Your task to perform on an android device: Open calendar and show me the second week of next month Image 0: 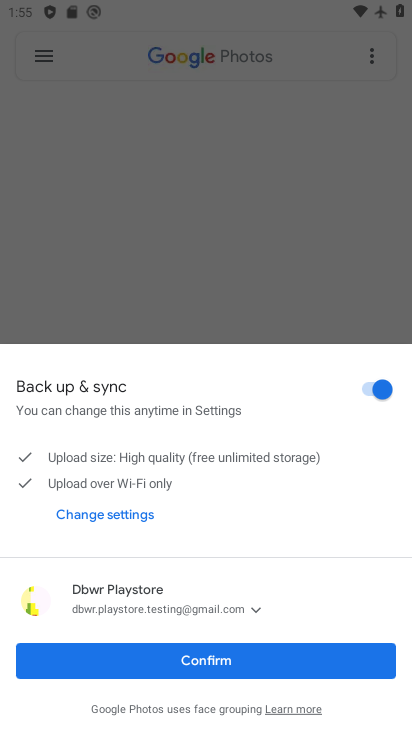
Step 0: press back button
Your task to perform on an android device: Open calendar and show me the second week of next month Image 1: 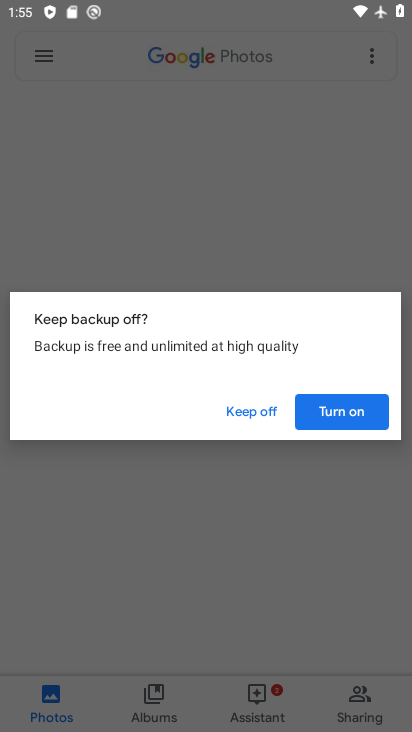
Step 1: press home button
Your task to perform on an android device: Open calendar and show me the second week of next month Image 2: 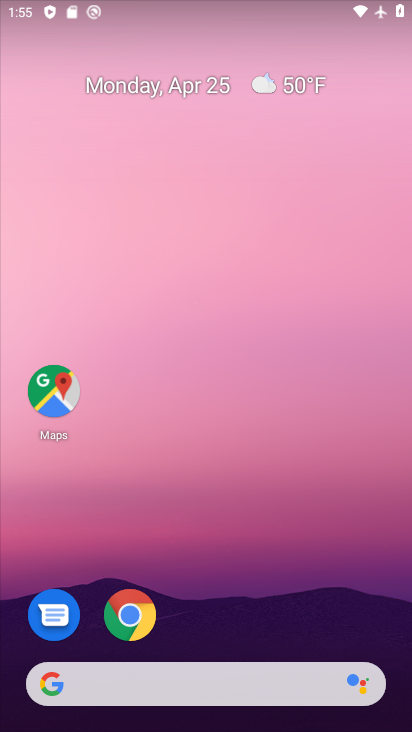
Step 2: drag from (228, 554) to (250, 46)
Your task to perform on an android device: Open calendar and show me the second week of next month Image 3: 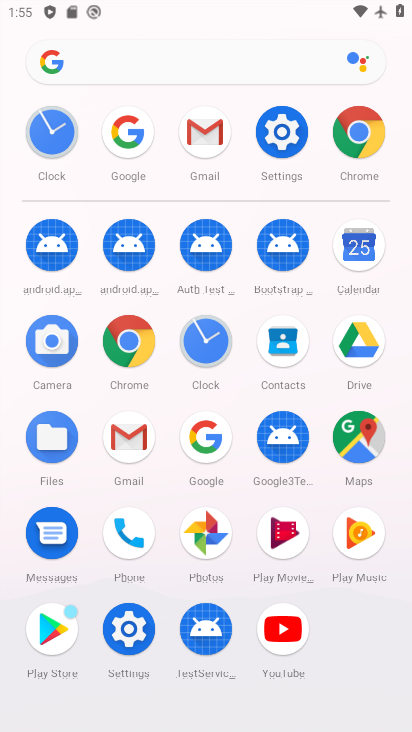
Step 3: click (361, 246)
Your task to perform on an android device: Open calendar and show me the second week of next month Image 4: 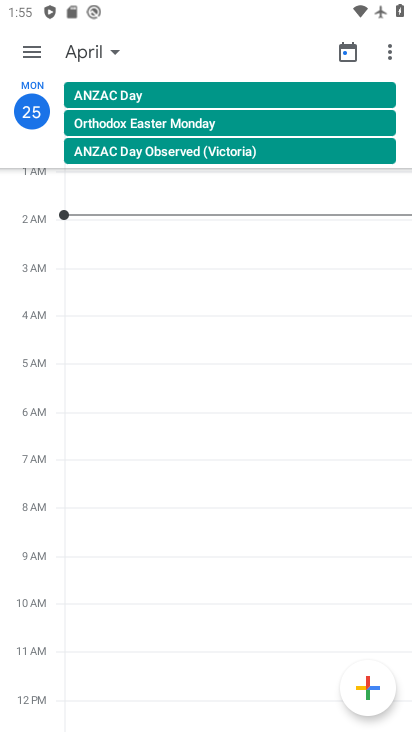
Step 4: click (352, 51)
Your task to perform on an android device: Open calendar and show me the second week of next month Image 5: 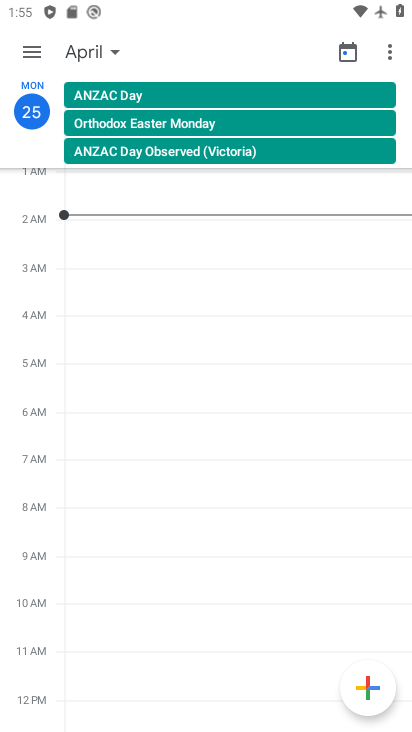
Step 5: click (352, 51)
Your task to perform on an android device: Open calendar and show me the second week of next month Image 6: 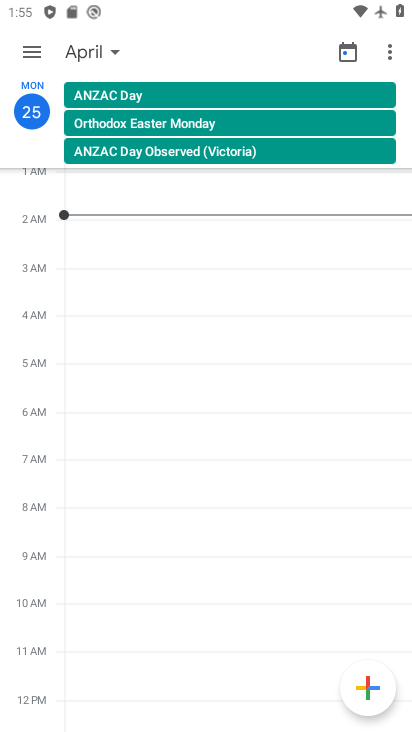
Step 6: click (112, 50)
Your task to perform on an android device: Open calendar and show me the second week of next month Image 7: 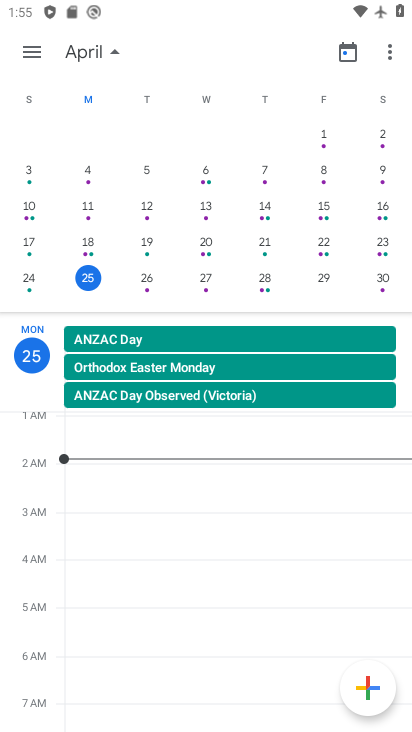
Step 7: drag from (305, 236) to (4, 184)
Your task to perform on an android device: Open calendar and show me the second week of next month Image 8: 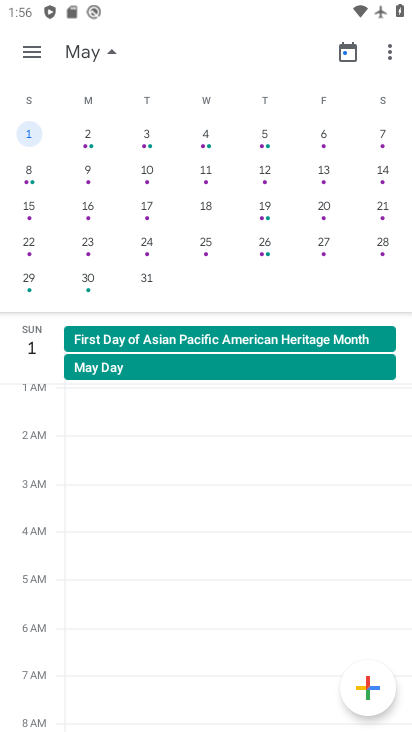
Step 8: click (89, 166)
Your task to perform on an android device: Open calendar and show me the second week of next month Image 9: 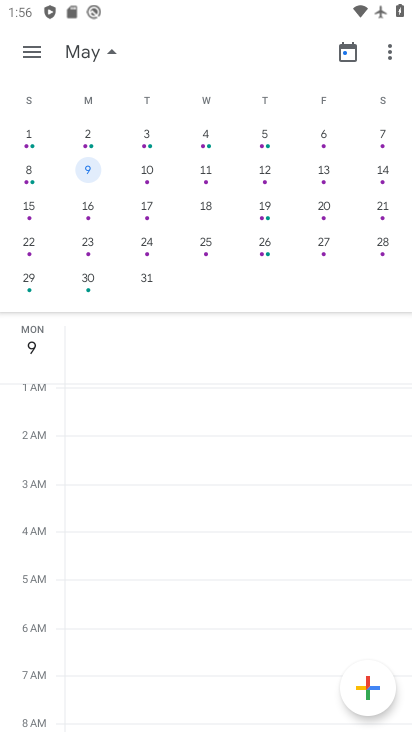
Step 9: click (34, 57)
Your task to perform on an android device: Open calendar and show me the second week of next month Image 10: 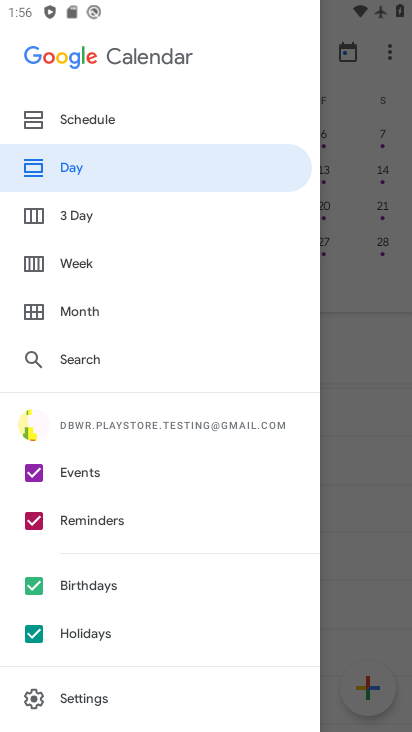
Step 10: click (79, 259)
Your task to perform on an android device: Open calendar and show me the second week of next month Image 11: 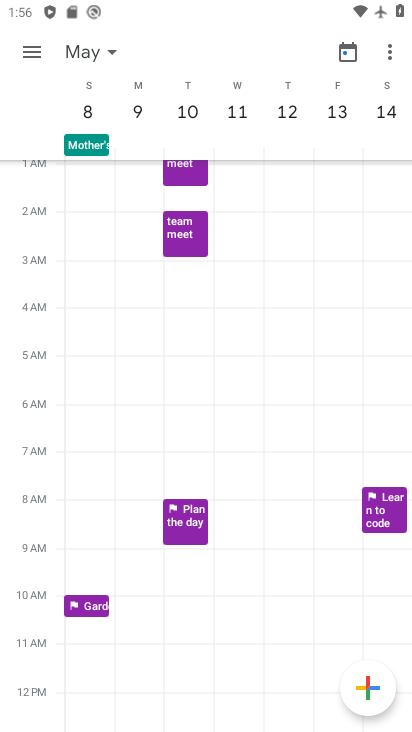
Step 11: task complete